Your task to perform on an android device: set an alarm Image 0: 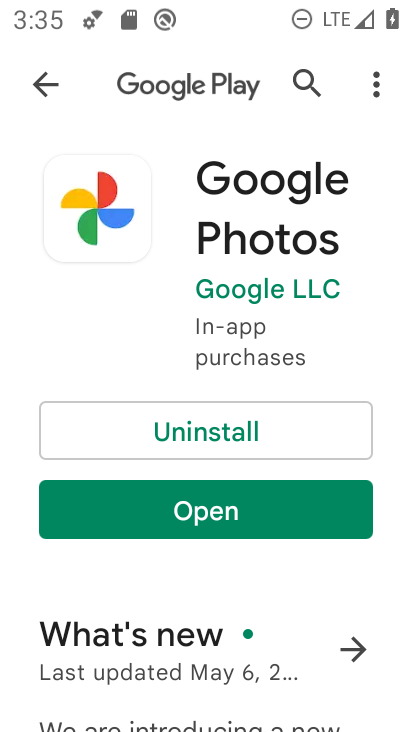
Step 0: press home button
Your task to perform on an android device: set an alarm Image 1: 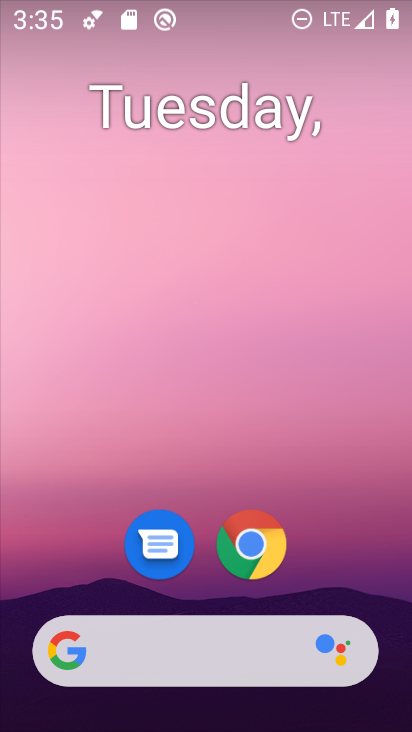
Step 1: drag from (369, 555) to (373, 150)
Your task to perform on an android device: set an alarm Image 2: 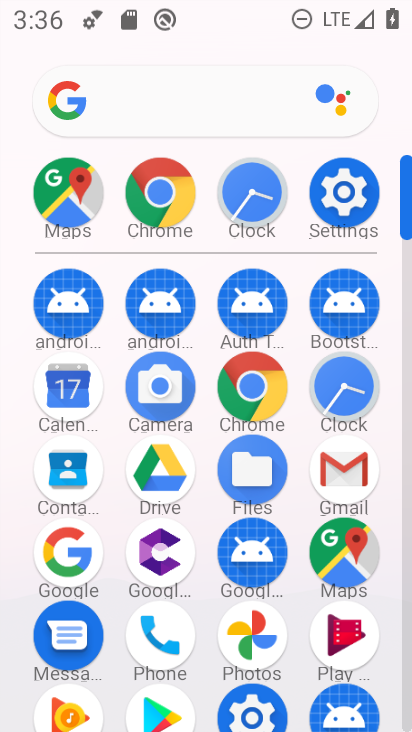
Step 2: click (353, 386)
Your task to perform on an android device: set an alarm Image 3: 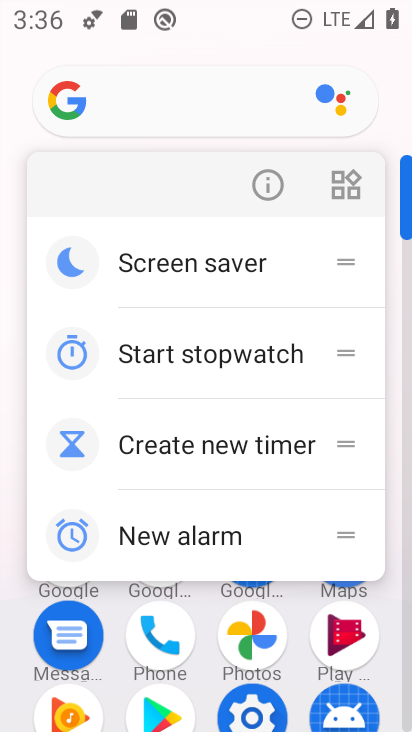
Step 3: click (395, 379)
Your task to perform on an android device: set an alarm Image 4: 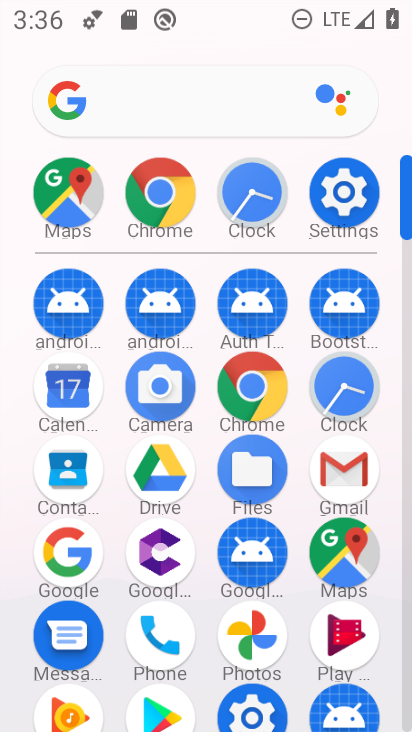
Step 4: click (361, 394)
Your task to perform on an android device: set an alarm Image 5: 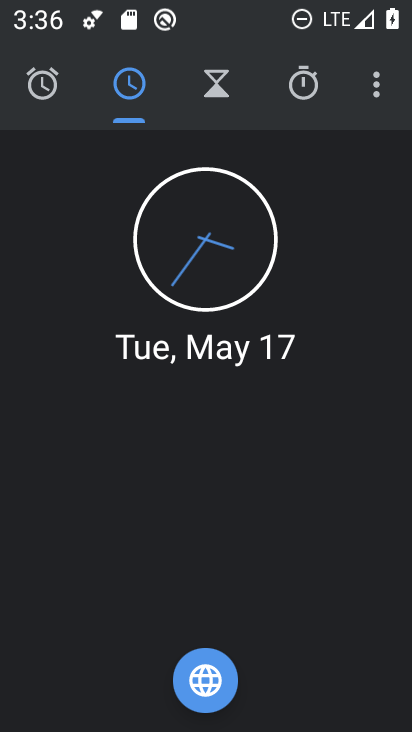
Step 5: click (53, 81)
Your task to perform on an android device: set an alarm Image 6: 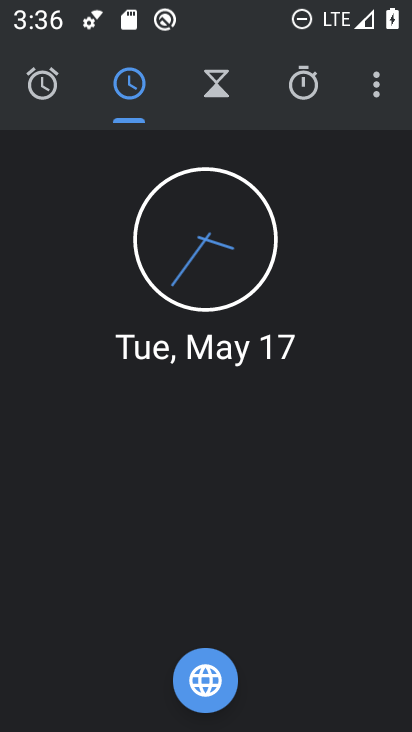
Step 6: click (39, 87)
Your task to perform on an android device: set an alarm Image 7: 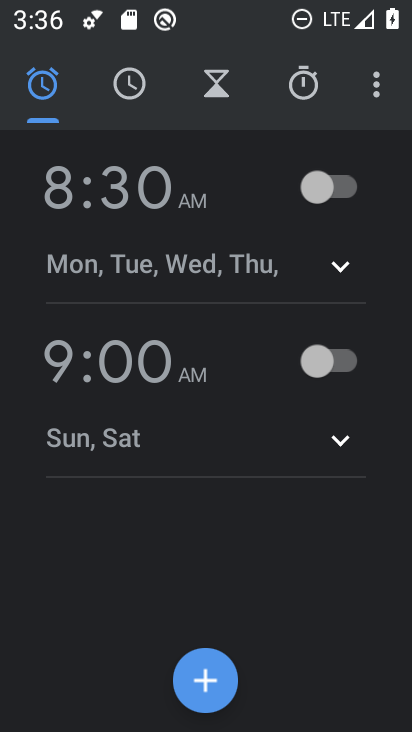
Step 7: click (187, 688)
Your task to perform on an android device: set an alarm Image 8: 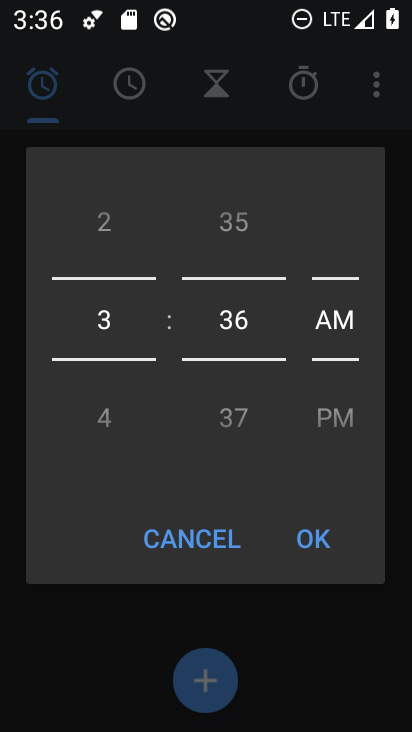
Step 8: click (323, 544)
Your task to perform on an android device: set an alarm Image 9: 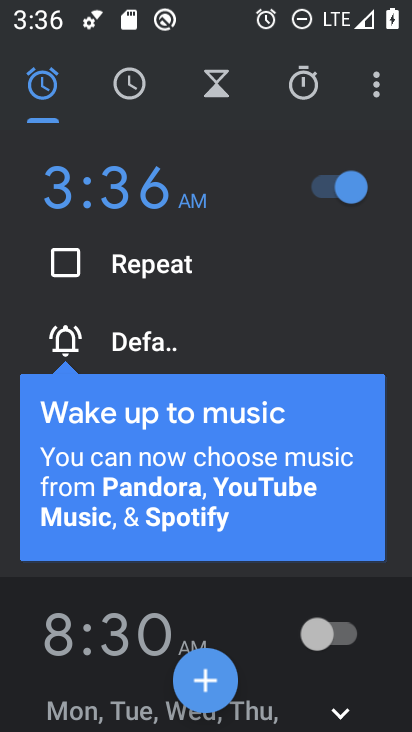
Step 9: task complete